Your task to perform on an android device: delete the emails in spam in the gmail app Image 0: 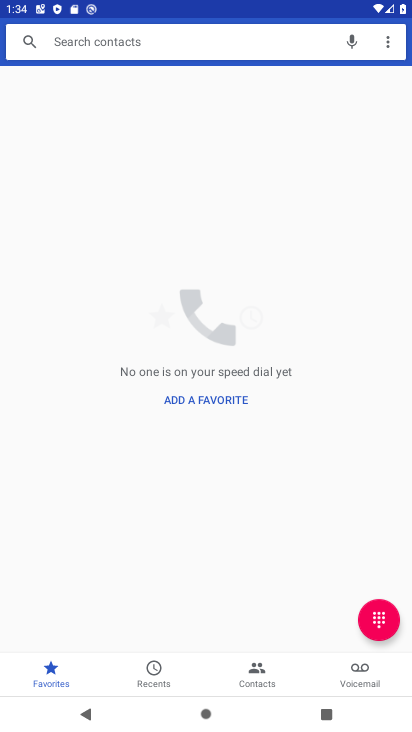
Step 0: press home button
Your task to perform on an android device: delete the emails in spam in the gmail app Image 1: 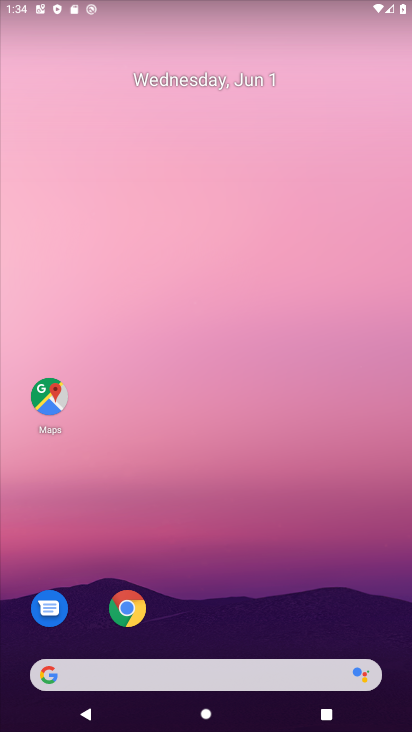
Step 1: drag from (176, 633) to (240, 54)
Your task to perform on an android device: delete the emails in spam in the gmail app Image 2: 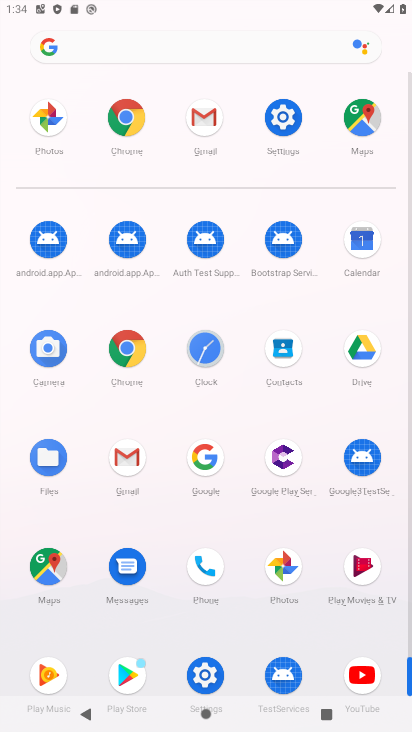
Step 2: click (206, 118)
Your task to perform on an android device: delete the emails in spam in the gmail app Image 3: 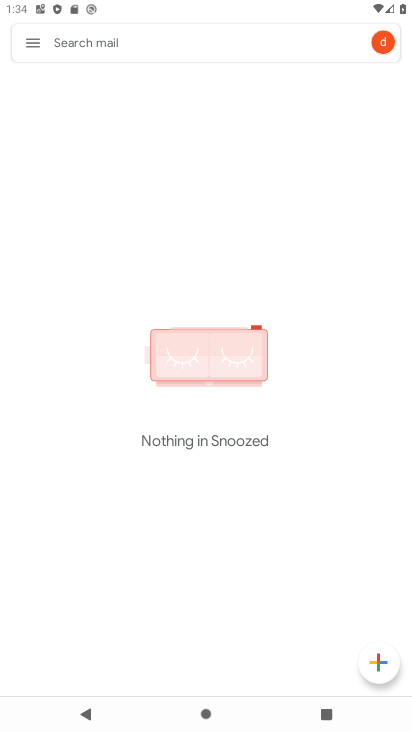
Step 3: click (32, 39)
Your task to perform on an android device: delete the emails in spam in the gmail app Image 4: 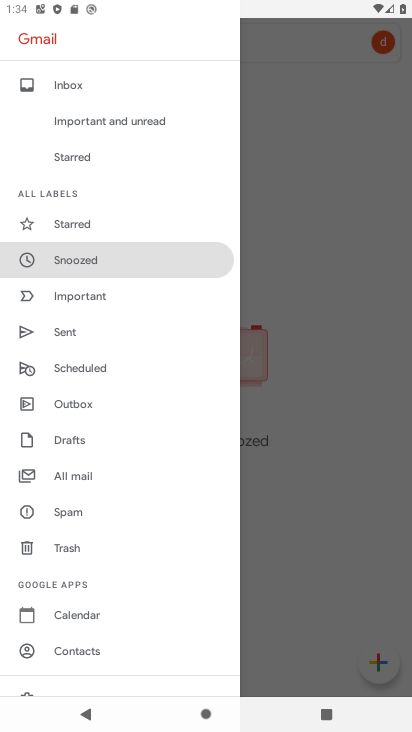
Step 4: click (75, 514)
Your task to perform on an android device: delete the emails in spam in the gmail app Image 5: 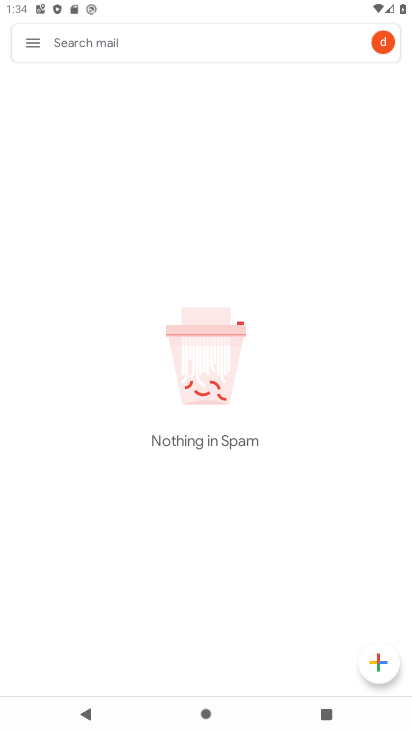
Step 5: task complete